Your task to perform on an android device: Go to Google Image 0: 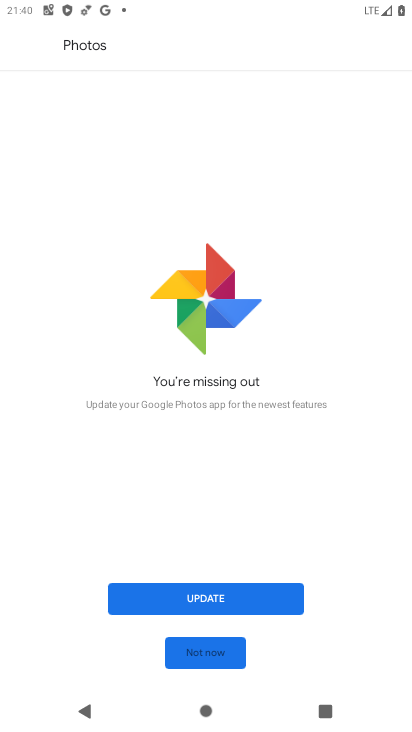
Step 0: press back button
Your task to perform on an android device: Go to Google Image 1: 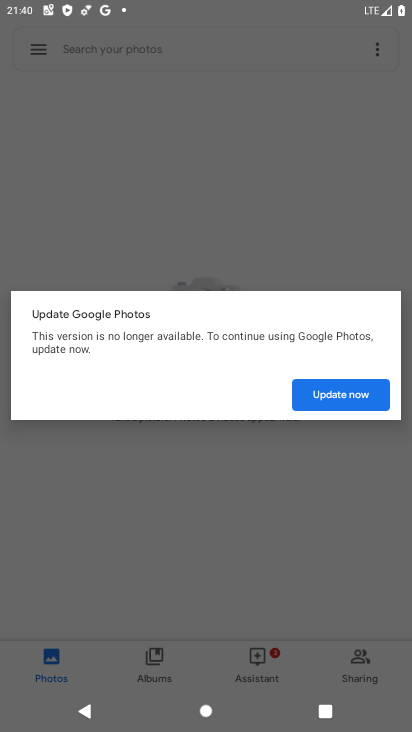
Step 1: press home button
Your task to perform on an android device: Go to Google Image 2: 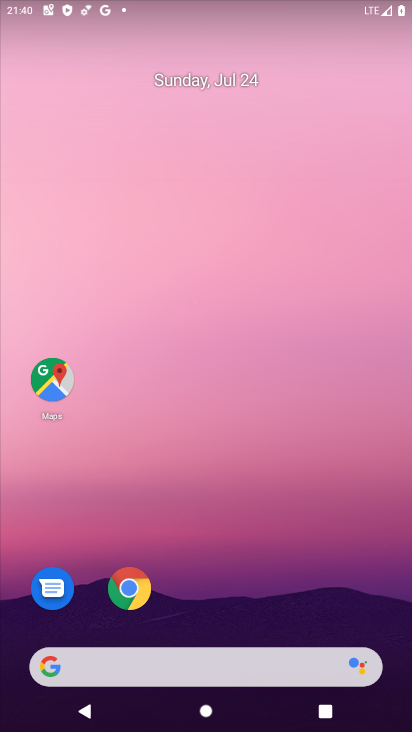
Step 2: click (198, 660)
Your task to perform on an android device: Go to Google Image 3: 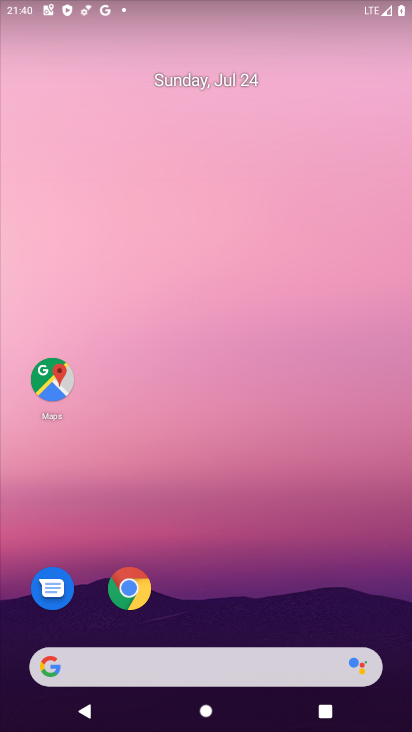
Step 3: task complete